Your task to perform on an android device: turn off improve location accuracy Image 0: 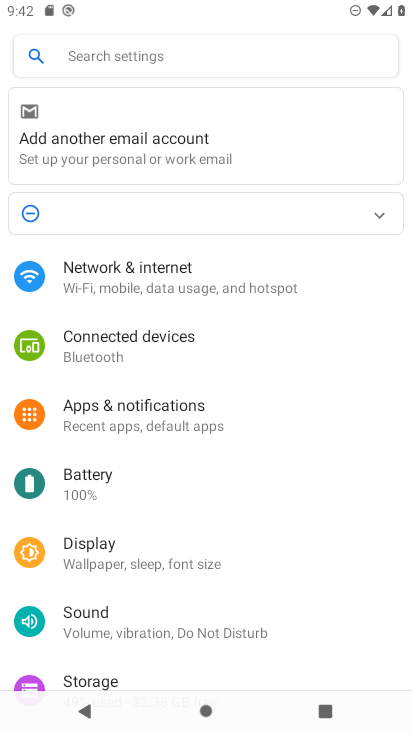
Step 0: drag from (308, 588) to (256, 143)
Your task to perform on an android device: turn off improve location accuracy Image 1: 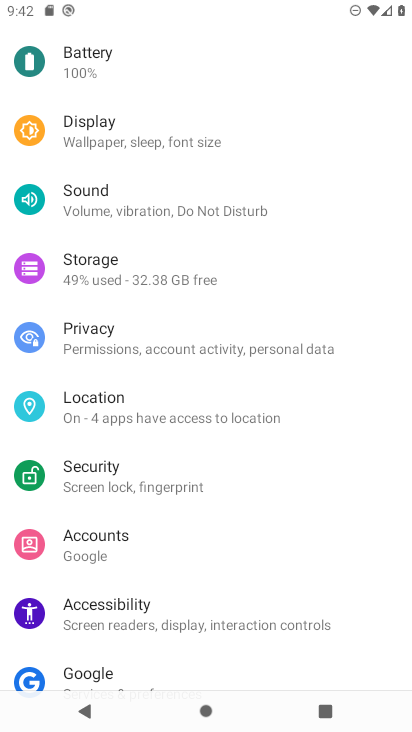
Step 1: click (134, 399)
Your task to perform on an android device: turn off improve location accuracy Image 2: 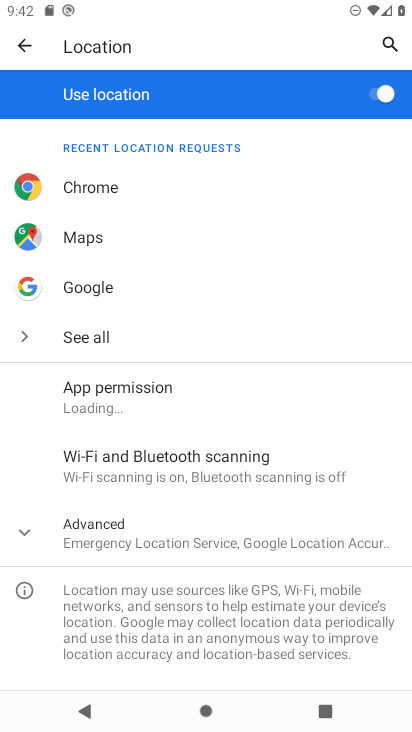
Step 2: click (78, 525)
Your task to perform on an android device: turn off improve location accuracy Image 3: 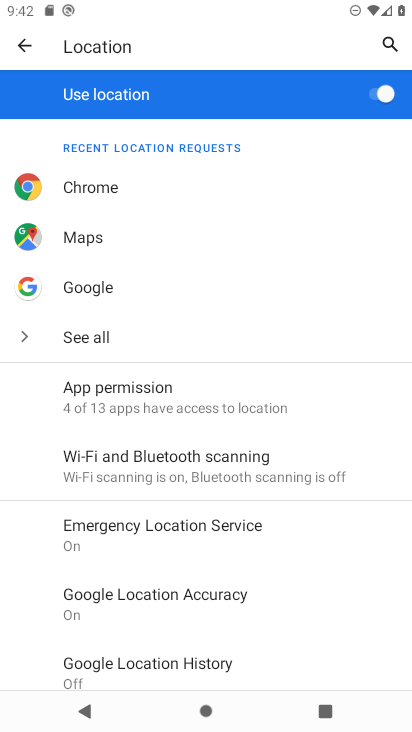
Step 3: click (105, 599)
Your task to perform on an android device: turn off improve location accuracy Image 4: 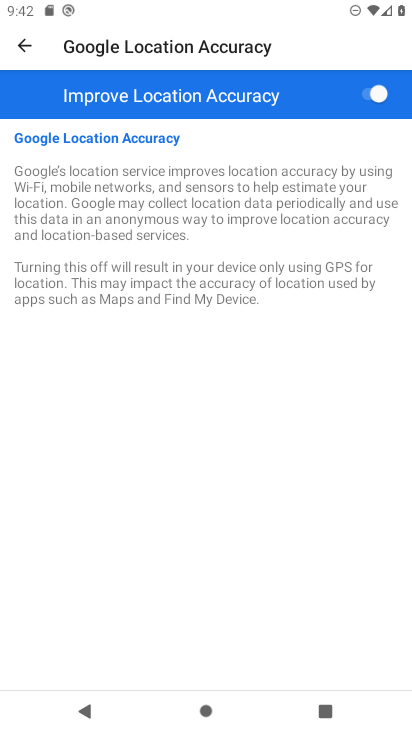
Step 4: click (365, 93)
Your task to perform on an android device: turn off improve location accuracy Image 5: 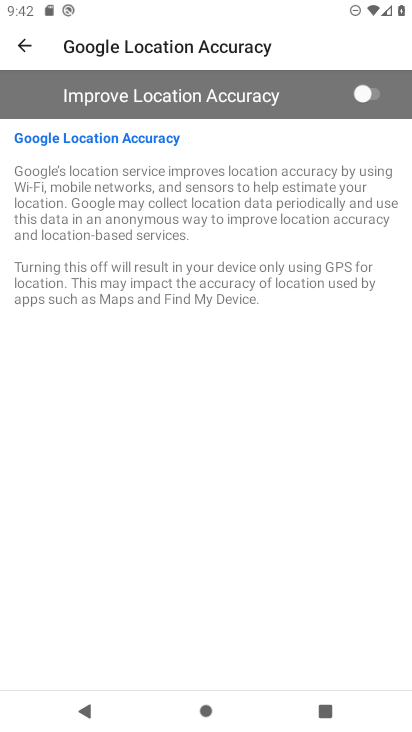
Step 5: task complete